Your task to perform on an android device: change notification settings in the gmail app Image 0: 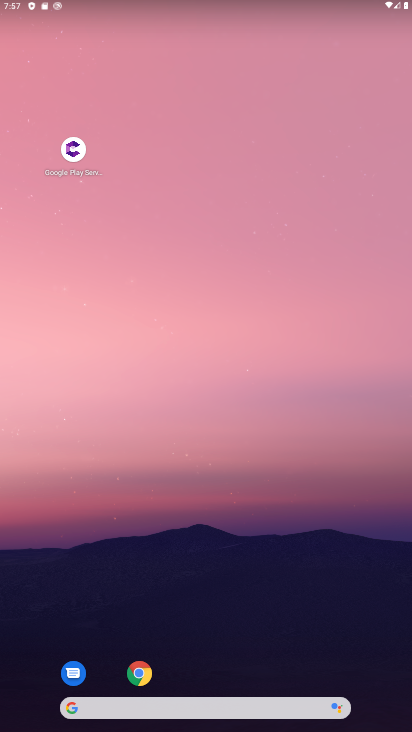
Step 0: drag from (265, 242) to (173, 93)
Your task to perform on an android device: change notification settings in the gmail app Image 1: 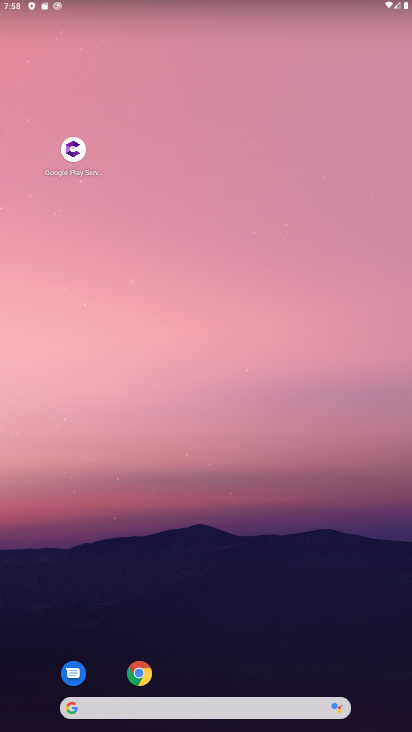
Step 1: drag from (305, 632) to (236, 127)
Your task to perform on an android device: change notification settings in the gmail app Image 2: 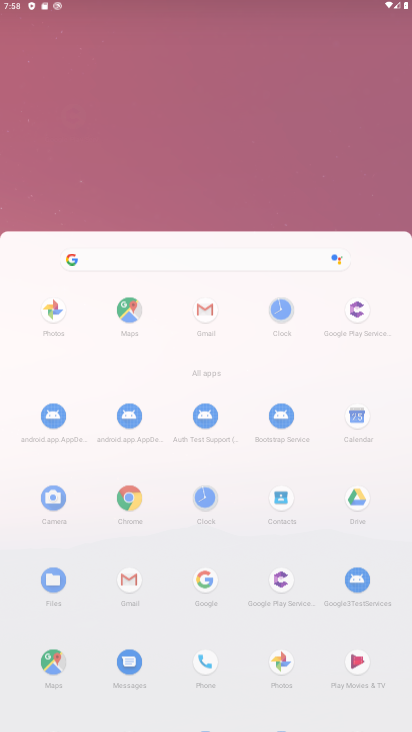
Step 2: click (225, 51)
Your task to perform on an android device: change notification settings in the gmail app Image 3: 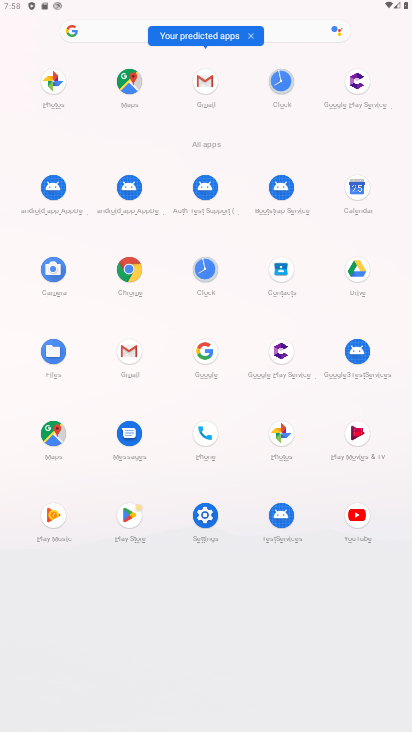
Step 3: click (201, 85)
Your task to perform on an android device: change notification settings in the gmail app Image 4: 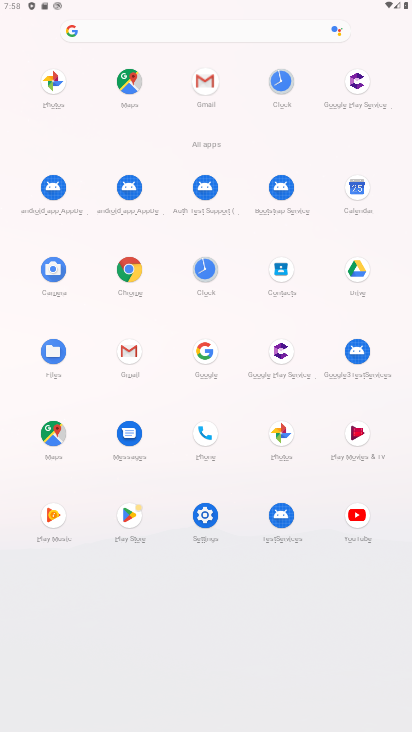
Step 4: click (200, 81)
Your task to perform on an android device: change notification settings in the gmail app Image 5: 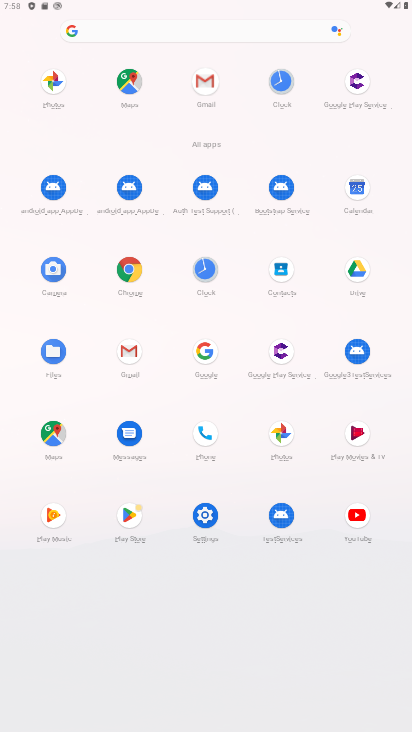
Step 5: click (201, 76)
Your task to perform on an android device: change notification settings in the gmail app Image 6: 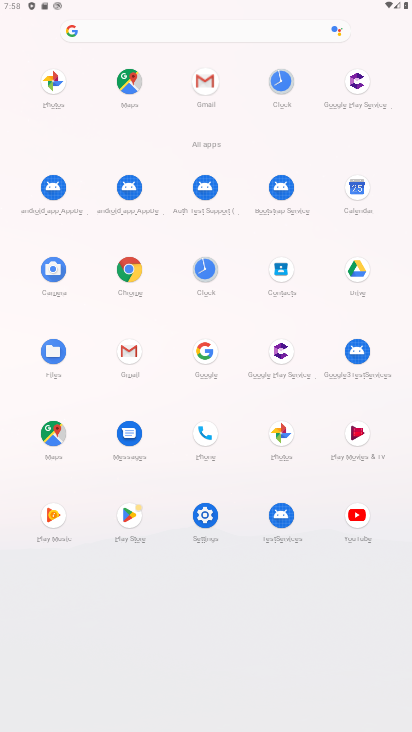
Step 6: click (201, 76)
Your task to perform on an android device: change notification settings in the gmail app Image 7: 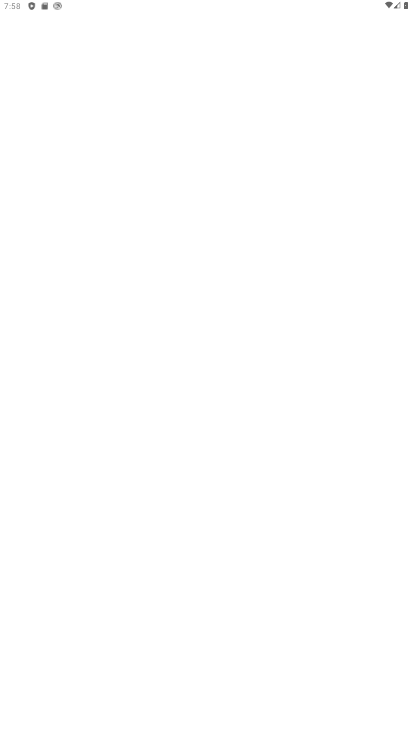
Step 7: click (202, 78)
Your task to perform on an android device: change notification settings in the gmail app Image 8: 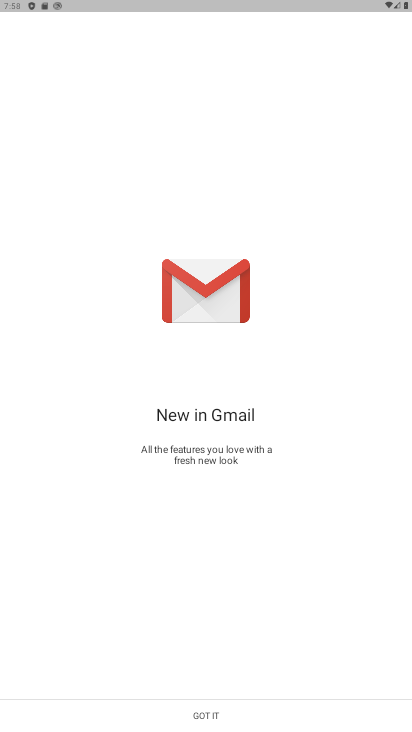
Step 8: click (202, 79)
Your task to perform on an android device: change notification settings in the gmail app Image 9: 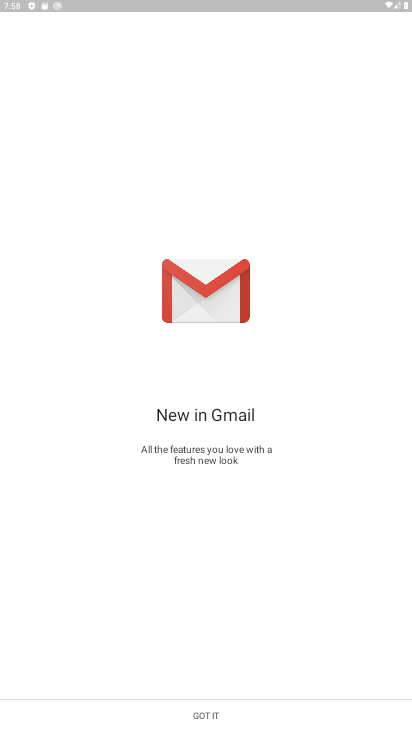
Step 9: click (202, 79)
Your task to perform on an android device: change notification settings in the gmail app Image 10: 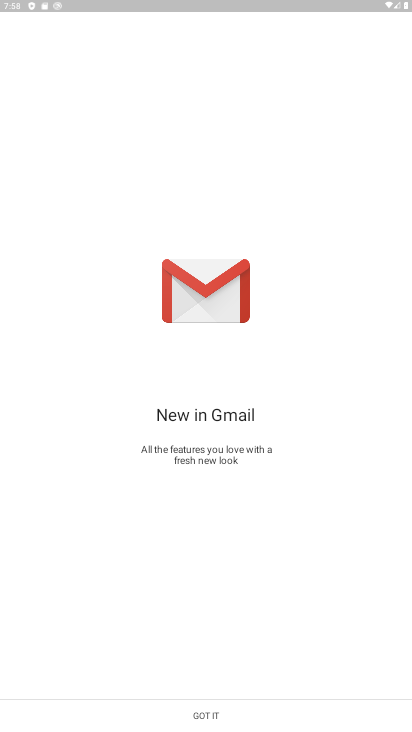
Step 10: click (202, 79)
Your task to perform on an android device: change notification settings in the gmail app Image 11: 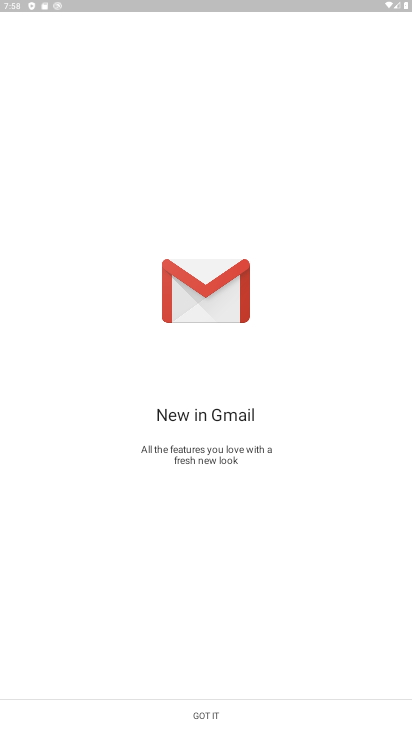
Step 11: click (218, 718)
Your task to perform on an android device: change notification settings in the gmail app Image 12: 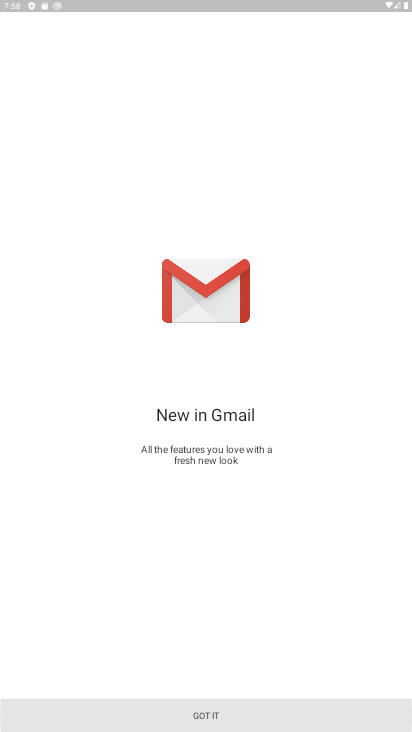
Step 12: click (218, 718)
Your task to perform on an android device: change notification settings in the gmail app Image 13: 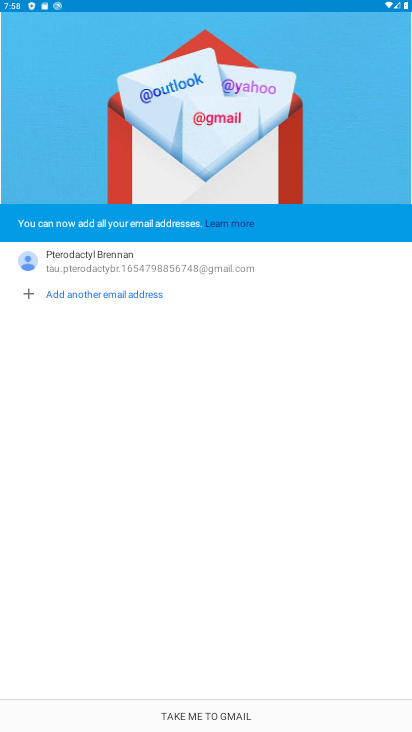
Step 13: click (218, 718)
Your task to perform on an android device: change notification settings in the gmail app Image 14: 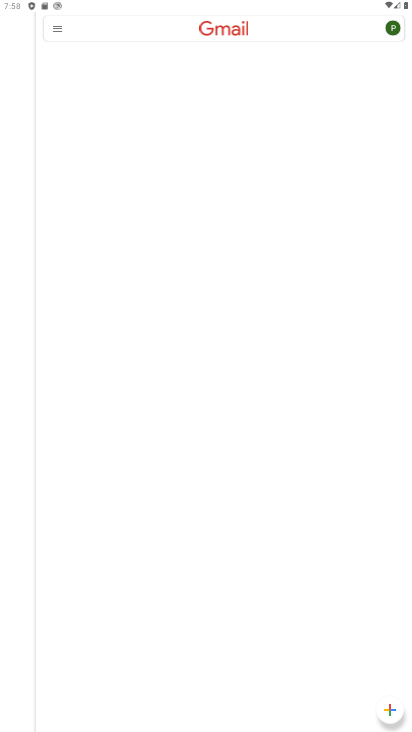
Step 14: click (233, 709)
Your task to perform on an android device: change notification settings in the gmail app Image 15: 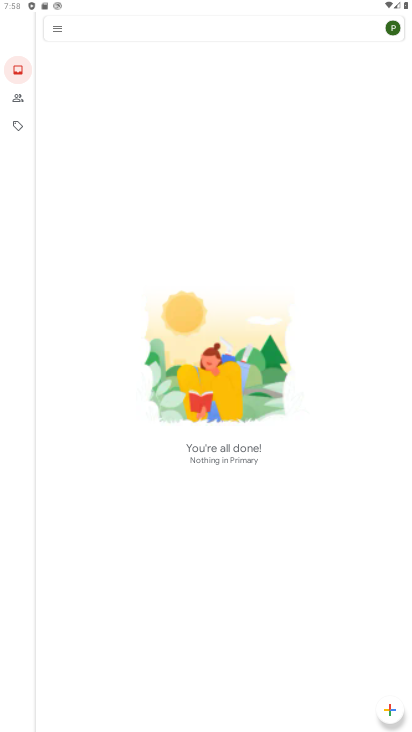
Step 15: click (50, 26)
Your task to perform on an android device: change notification settings in the gmail app Image 16: 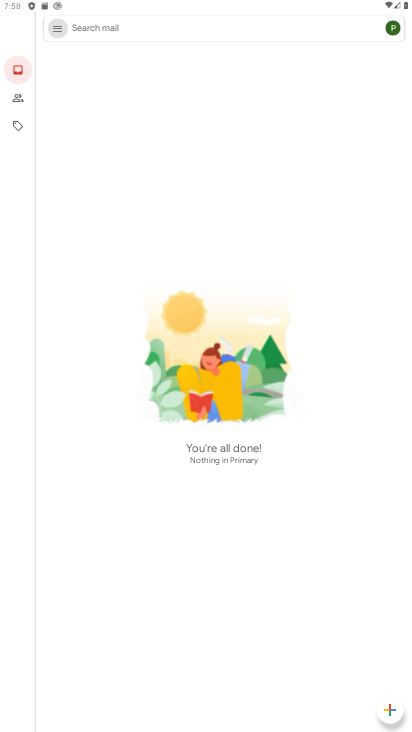
Step 16: click (57, 27)
Your task to perform on an android device: change notification settings in the gmail app Image 17: 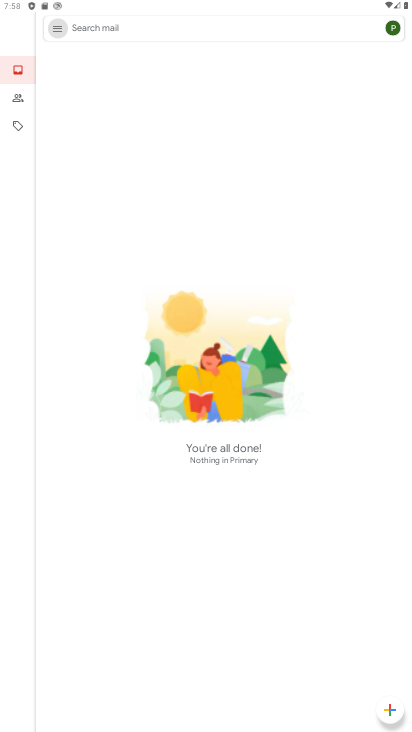
Step 17: click (56, 23)
Your task to perform on an android device: change notification settings in the gmail app Image 18: 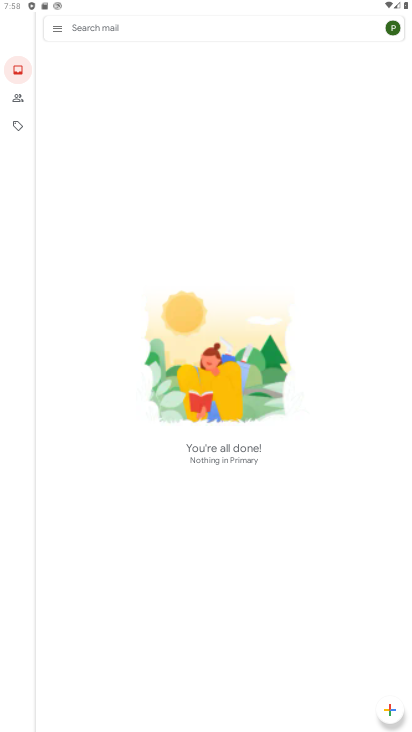
Step 18: click (59, 31)
Your task to perform on an android device: change notification settings in the gmail app Image 19: 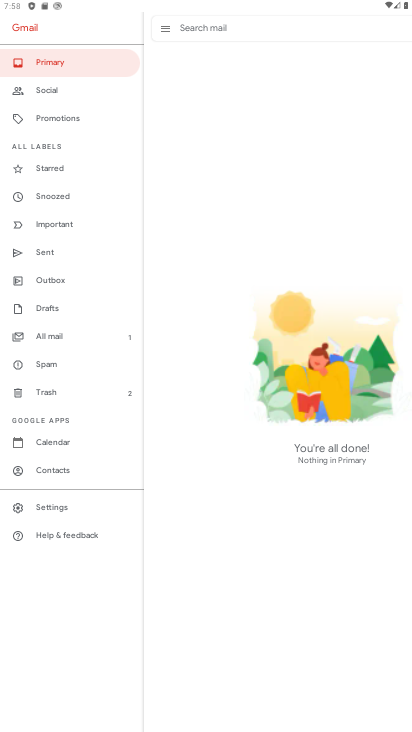
Step 19: click (43, 502)
Your task to perform on an android device: change notification settings in the gmail app Image 20: 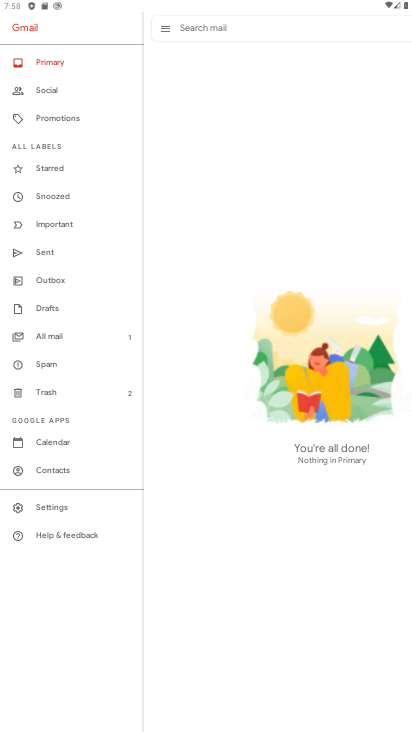
Step 20: click (43, 502)
Your task to perform on an android device: change notification settings in the gmail app Image 21: 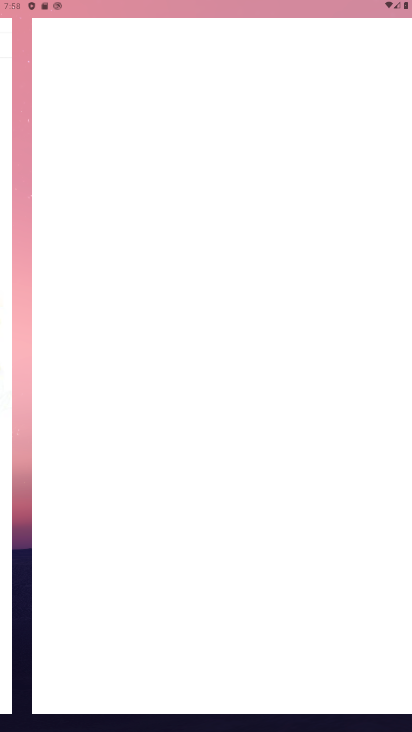
Step 21: click (43, 502)
Your task to perform on an android device: change notification settings in the gmail app Image 22: 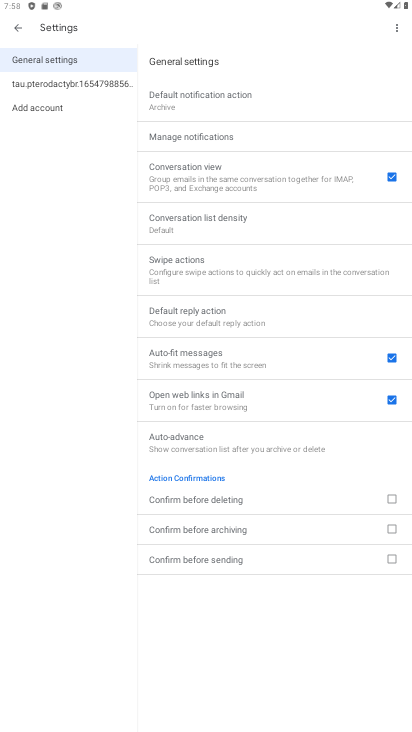
Step 22: click (63, 84)
Your task to perform on an android device: change notification settings in the gmail app Image 23: 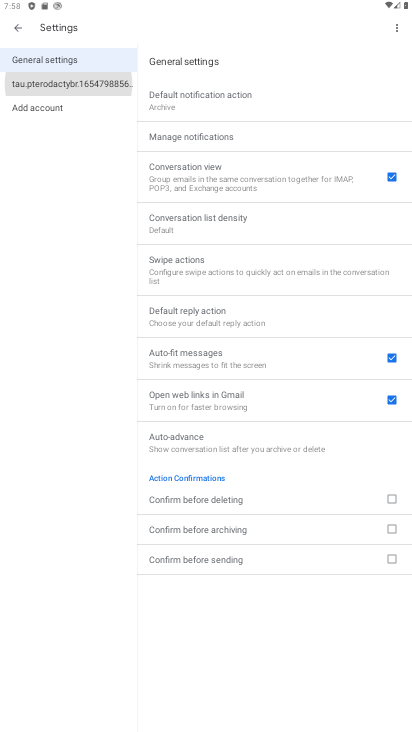
Step 23: click (61, 84)
Your task to perform on an android device: change notification settings in the gmail app Image 24: 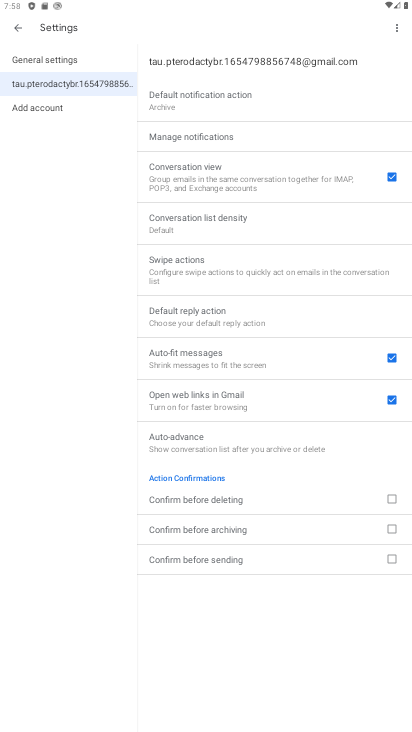
Step 24: click (61, 84)
Your task to perform on an android device: change notification settings in the gmail app Image 25: 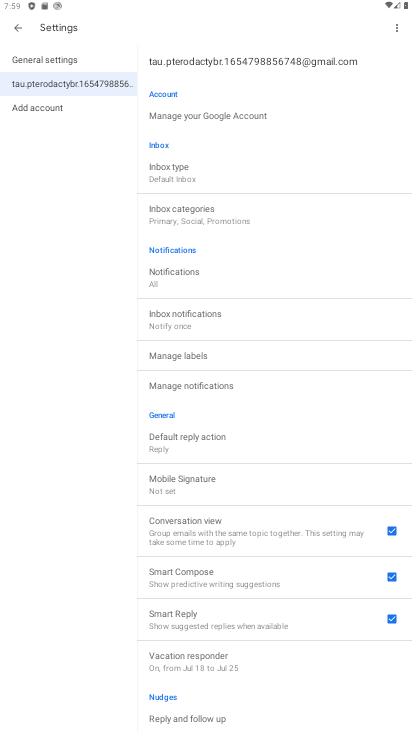
Step 25: click (163, 275)
Your task to perform on an android device: change notification settings in the gmail app Image 26: 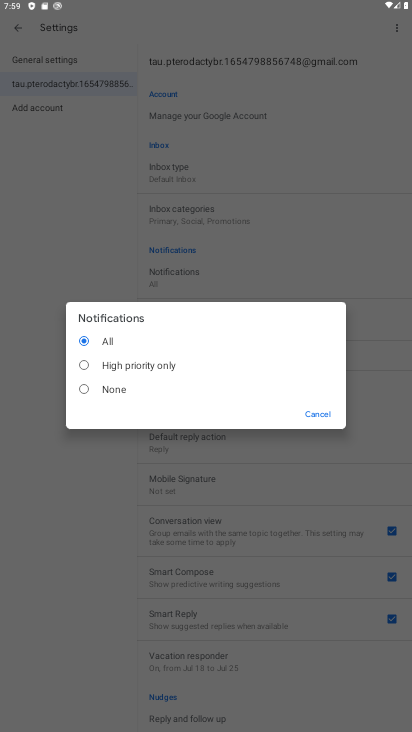
Step 26: click (313, 419)
Your task to perform on an android device: change notification settings in the gmail app Image 27: 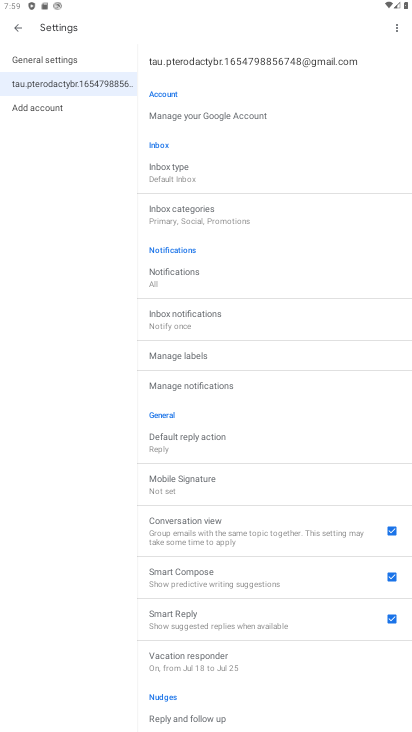
Step 27: task complete